Your task to perform on an android device: Turn on the flashlight Image 0: 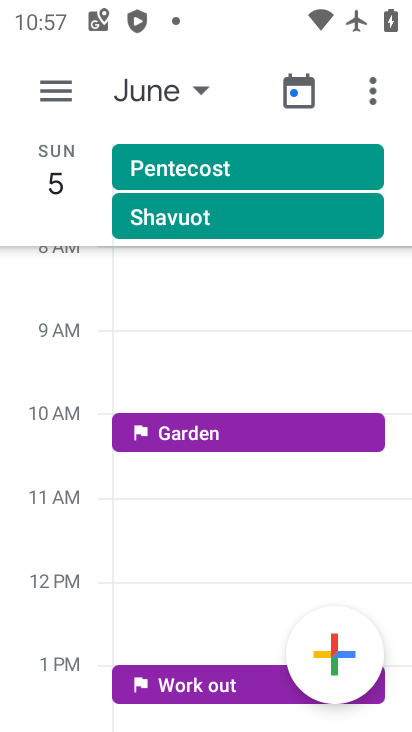
Step 0: drag from (230, 1) to (237, 488)
Your task to perform on an android device: Turn on the flashlight Image 1: 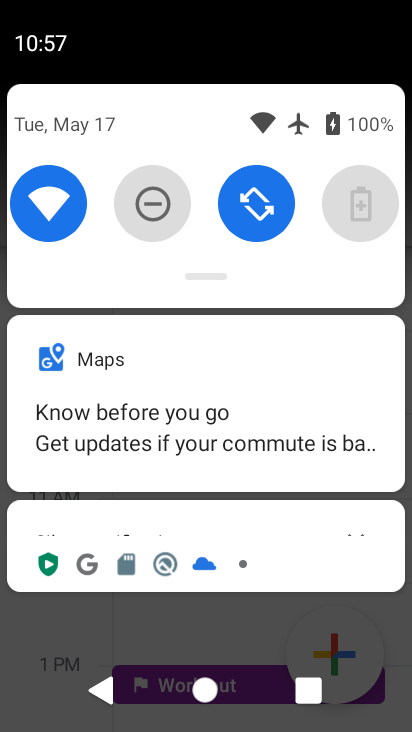
Step 1: task complete